Your task to perform on an android device: Open Wikipedia Image 0: 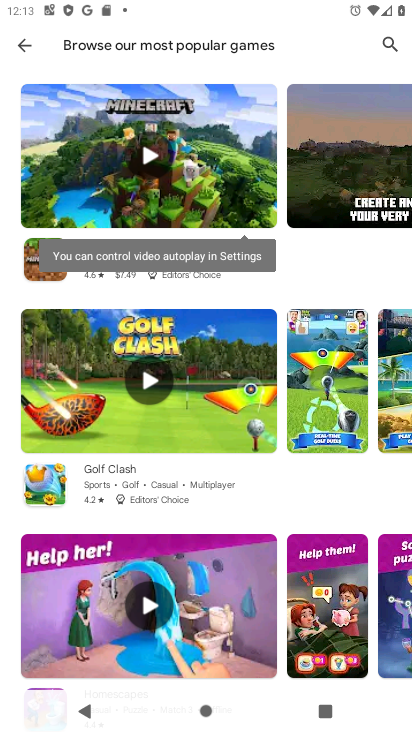
Step 0: press home button
Your task to perform on an android device: Open Wikipedia Image 1: 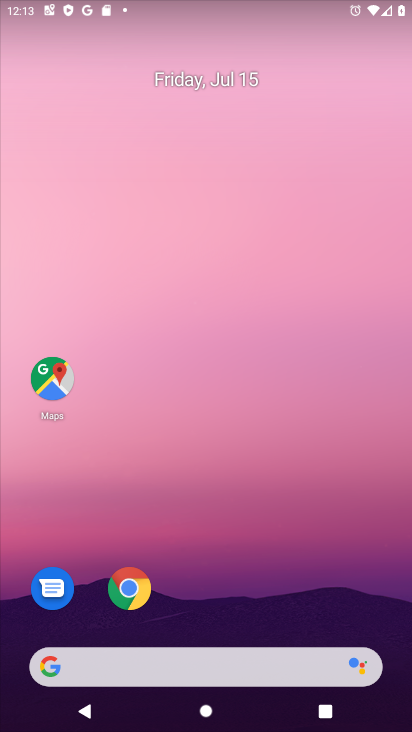
Step 1: click (132, 584)
Your task to perform on an android device: Open Wikipedia Image 2: 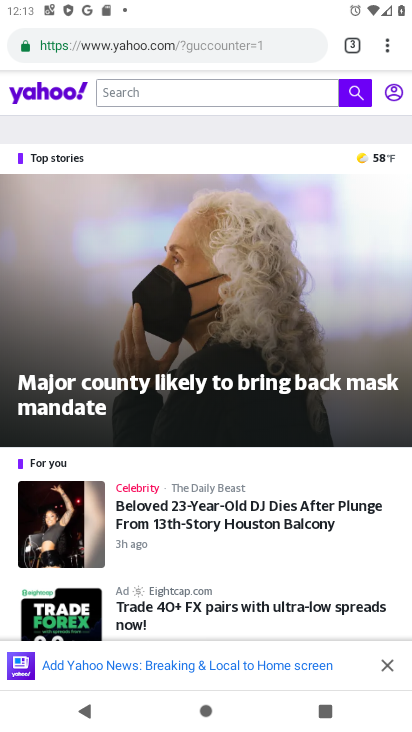
Step 2: drag from (385, 47) to (291, 98)
Your task to perform on an android device: Open Wikipedia Image 3: 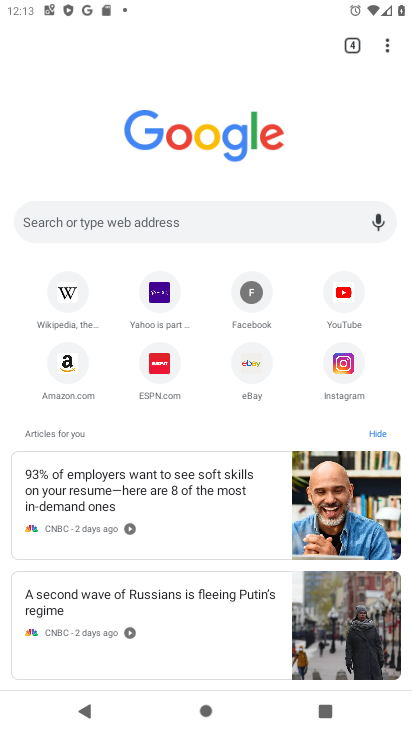
Step 3: click (70, 296)
Your task to perform on an android device: Open Wikipedia Image 4: 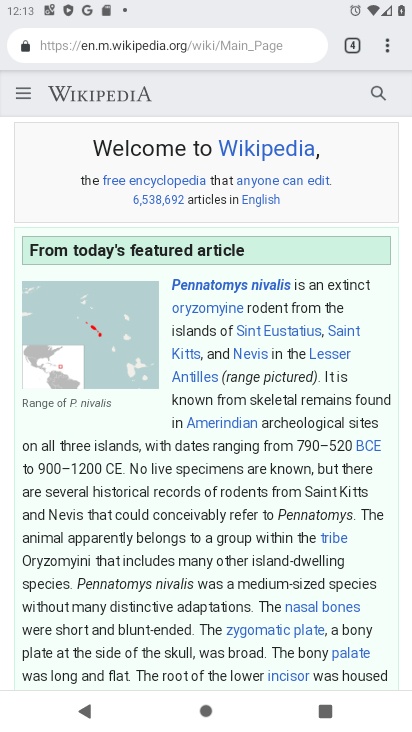
Step 4: task complete